Your task to perform on an android device: Open network settings Image 0: 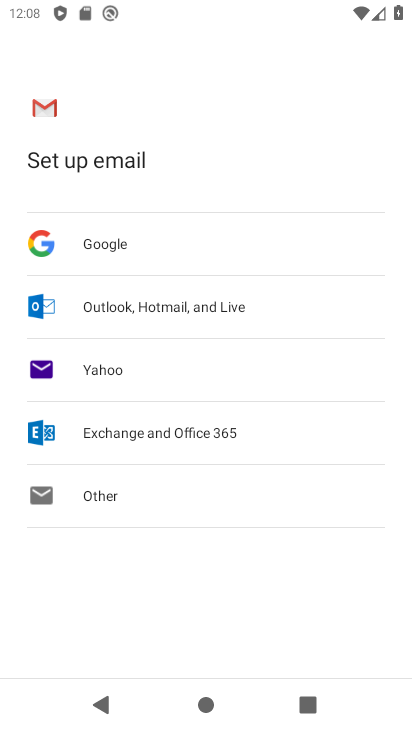
Step 0: press home button
Your task to perform on an android device: Open network settings Image 1: 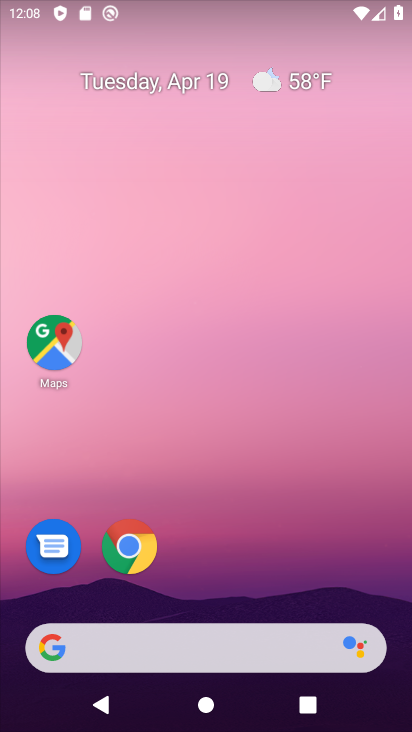
Step 1: drag from (235, 395) to (247, 83)
Your task to perform on an android device: Open network settings Image 2: 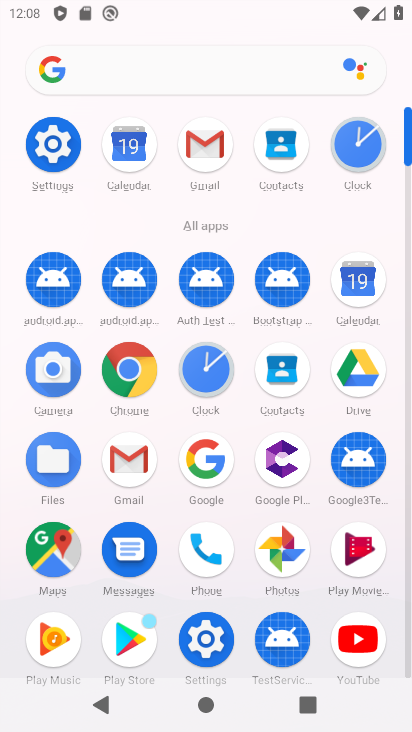
Step 2: click (202, 639)
Your task to perform on an android device: Open network settings Image 3: 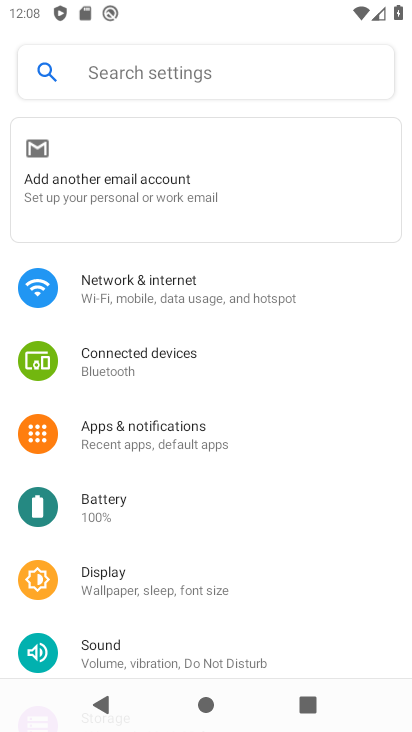
Step 3: click (171, 270)
Your task to perform on an android device: Open network settings Image 4: 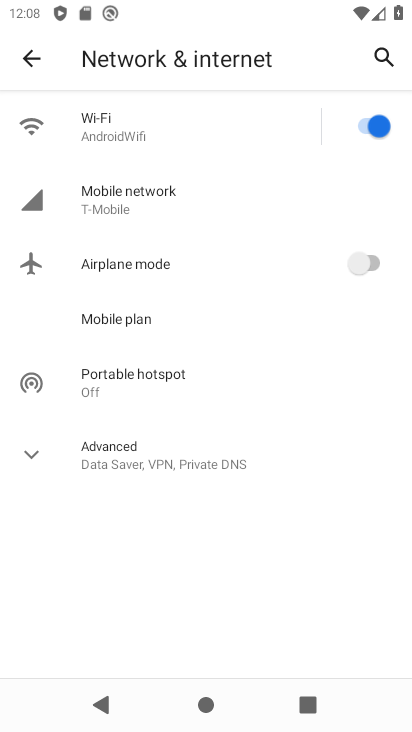
Step 4: click (151, 201)
Your task to perform on an android device: Open network settings Image 5: 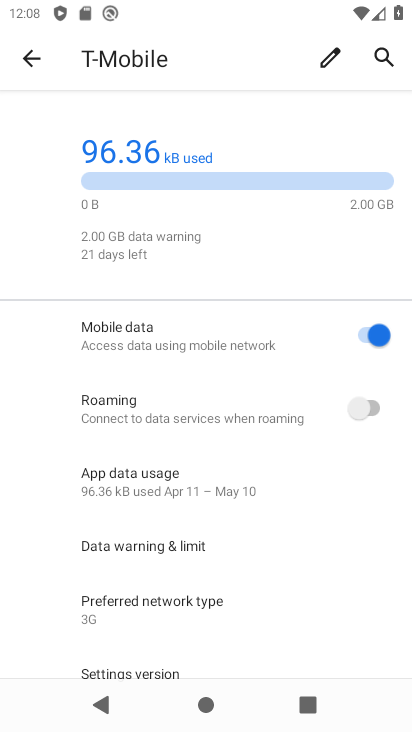
Step 5: task complete